Your task to perform on an android device: check storage Image 0: 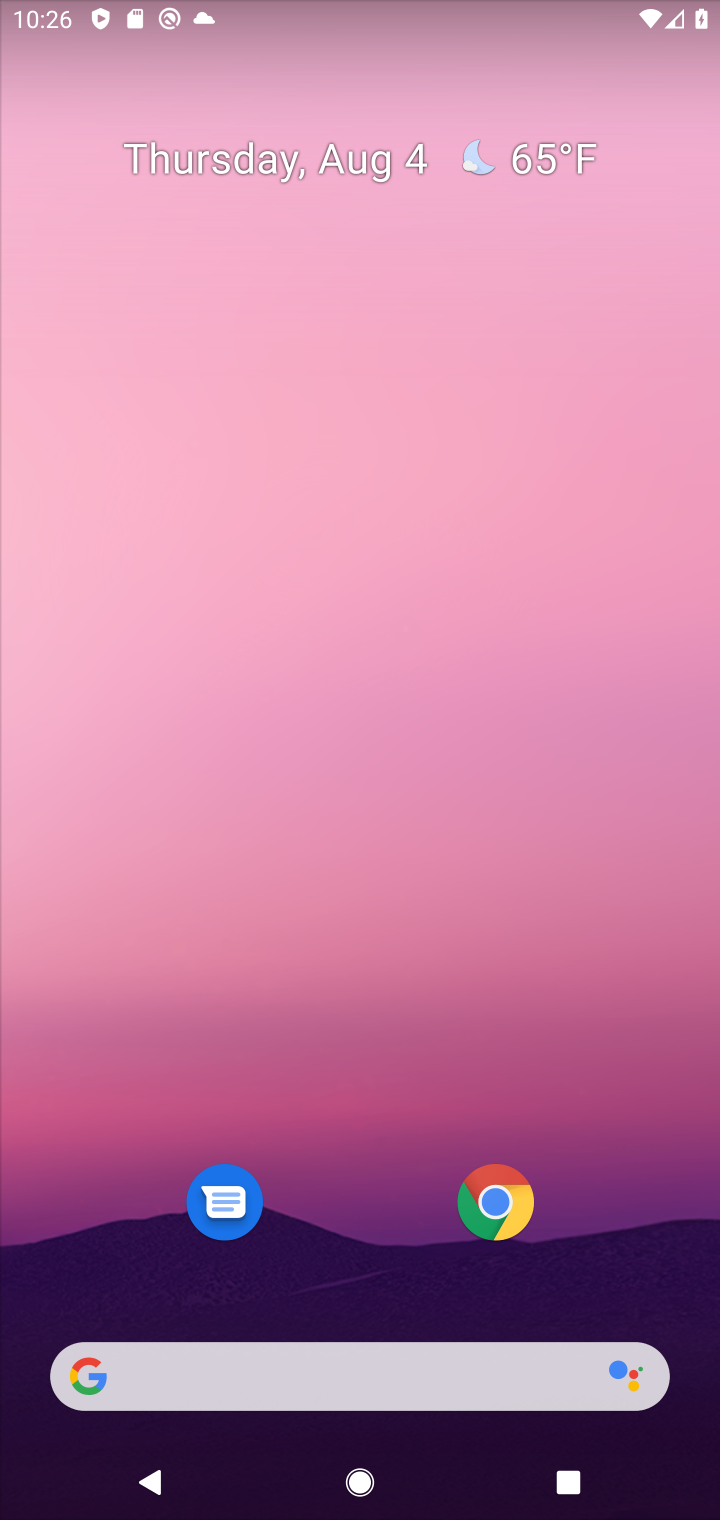
Step 0: drag from (392, 882) to (406, 36)
Your task to perform on an android device: check storage Image 1: 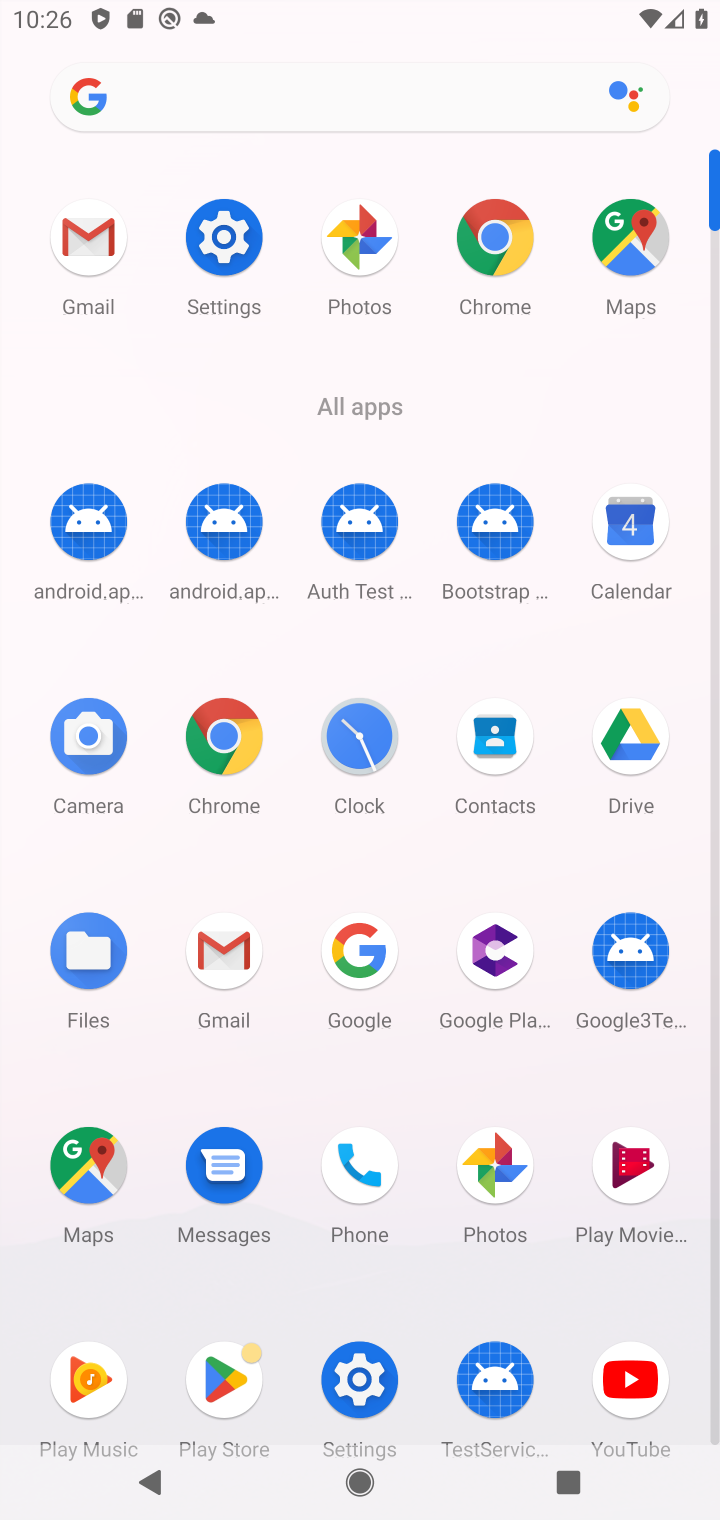
Step 1: click (245, 227)
Your task to perform on an android device: check storage Image 2: 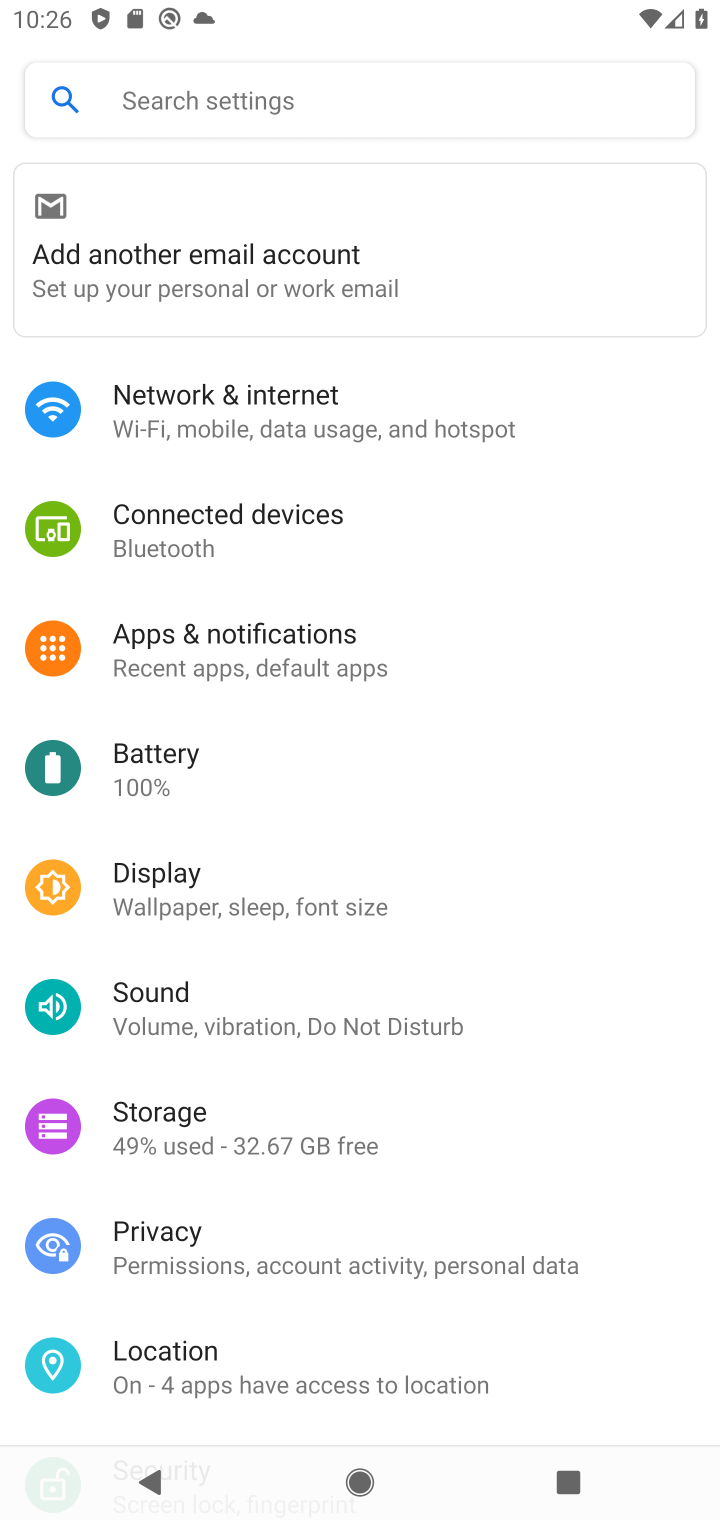
Step 2: click (166, 1133)
Your task to perform on an android device: check storage Image 3: 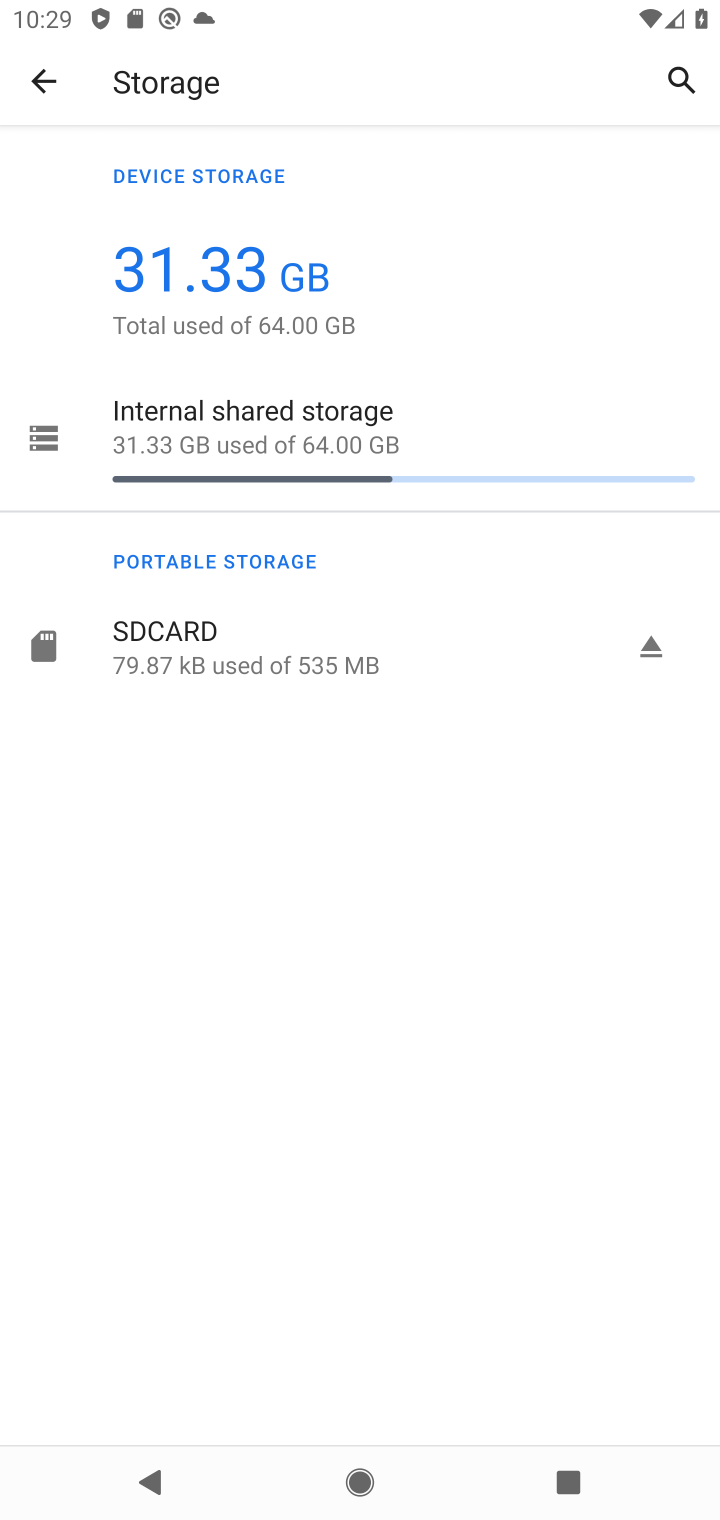
Step 3: task complete